Your task to perform on an android device: empty trash in google photos Image 0: 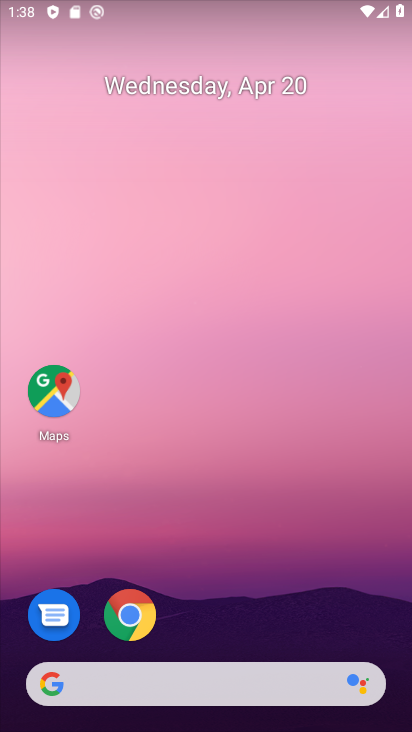
Step 0: drag from (252, 632) to (279, 88)
Your task to perform on an android device: empty trash in google photos Image 1: 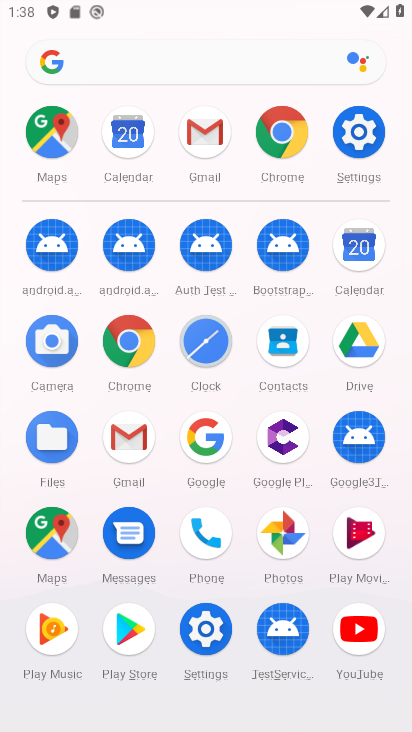
Step 1: click (278, 524)
Your task to perform on an android device: empty trash in google photos Image 2: 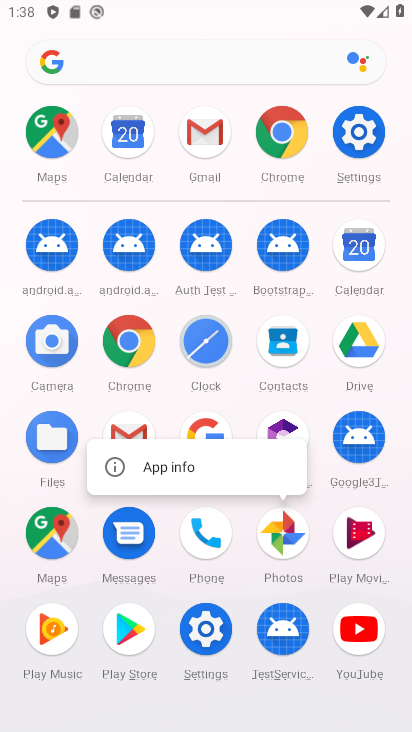
Step 2: click (278, 524)
Your task to perform on an android device: empty trash in google photos Image 3: 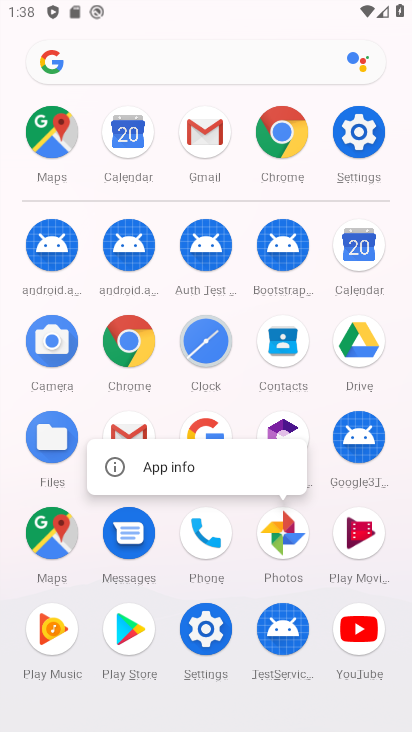
Step 3: click (278, 524)
Your task to perform on an android device: empty trash in google photos Image 4: 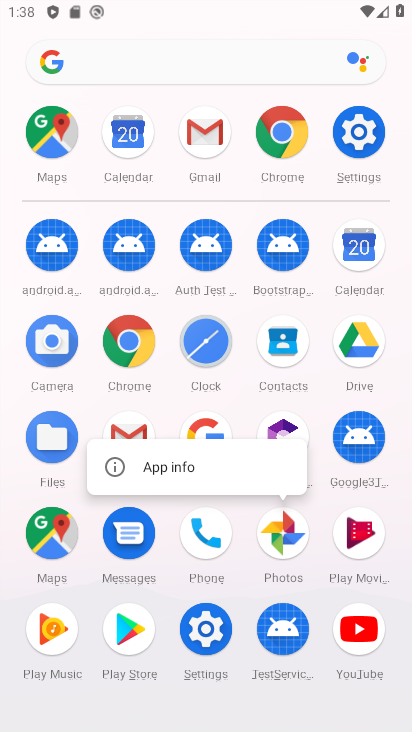
Step 4: click (274, 523)
Your task to perform on an android device: empty trash in google photos Image 5: 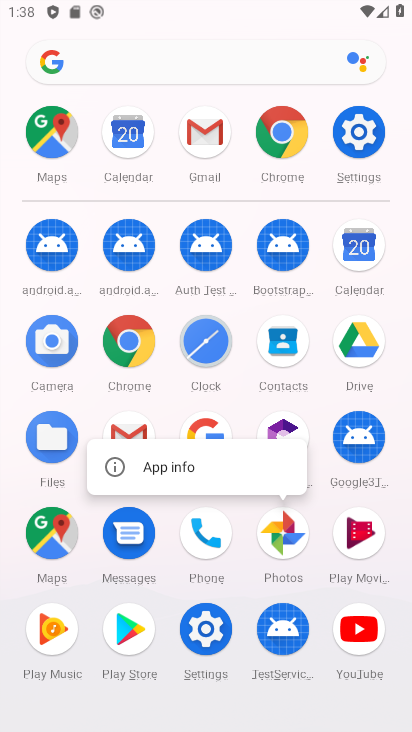
Step 5: click (271, 543)
Your task to perform on an android device: empty trash in google photos Image 6: 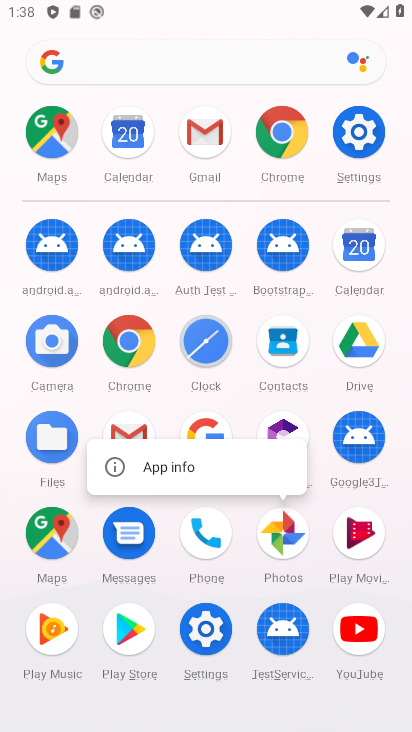
Step 6: click (274, 542)
Your task to perform on an android device: empty trash in google photos Image 7: 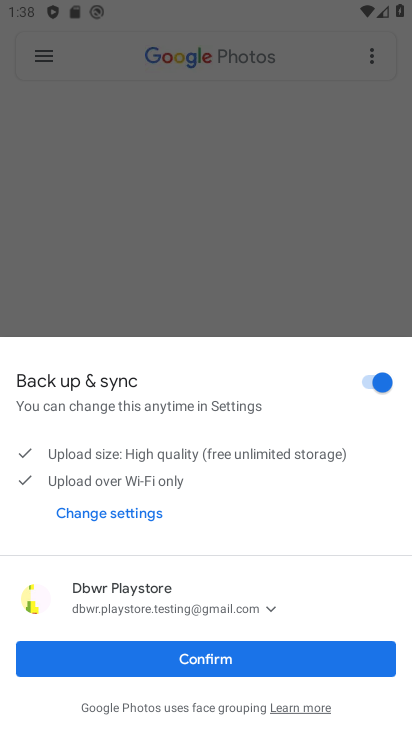
Step 7: click (214, 665)
Your task to perform on an android device: empty trash in google photos Image 8: 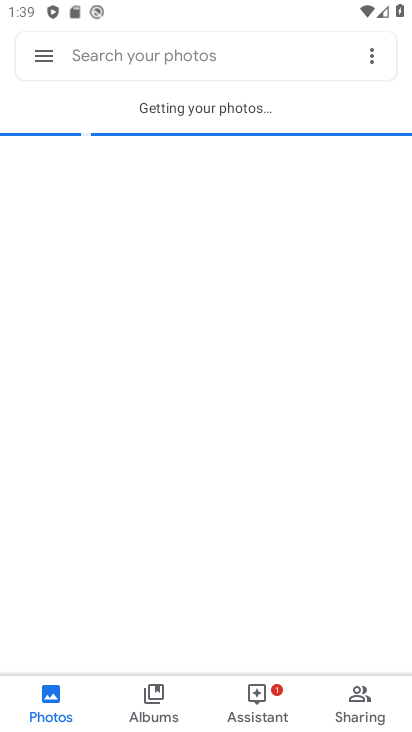
Step 8: click (45, 53)
Your task to perform on an android device: empty trash in google photos Image 9: 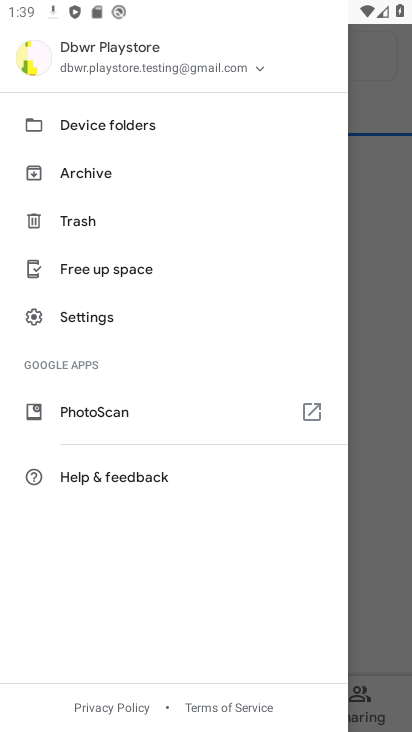
Step 9: click (90, 221)
Your task to perform on an android device: empty trash in google photos Image 10: 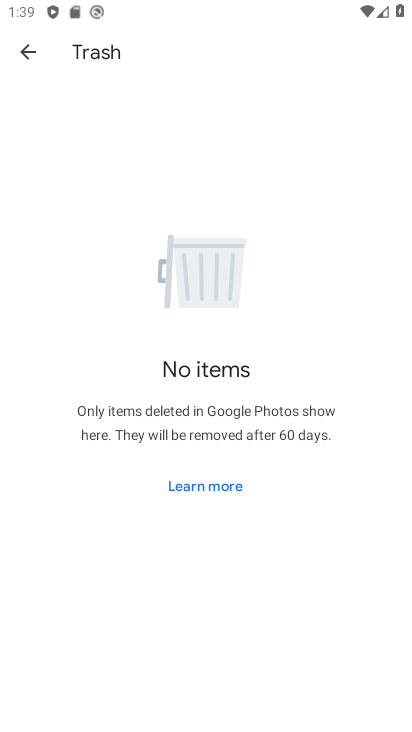
Step 10: task complete